Your task to perform on an android device: turn on location history Image 0: 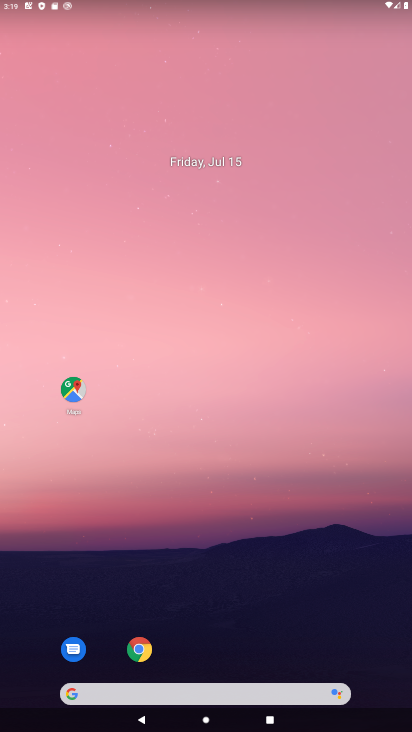
Step 0: drag from (301, 598) to (235, 145)
Your task to perform on an android device: turn on location history Image 1: 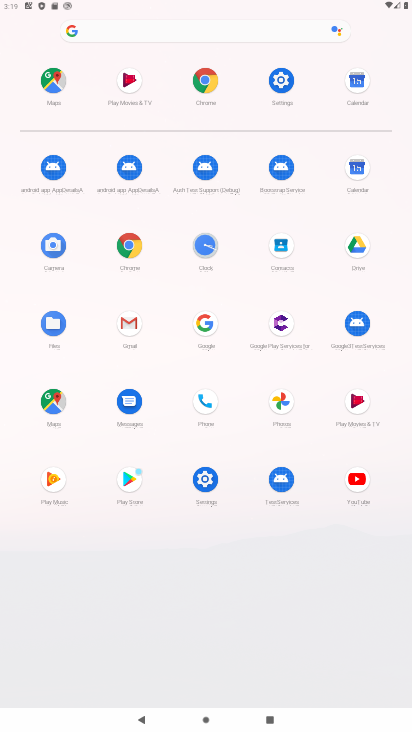
Step 1: click (283, 78)
Your task to perform on an android device: turn on location history Image 2: 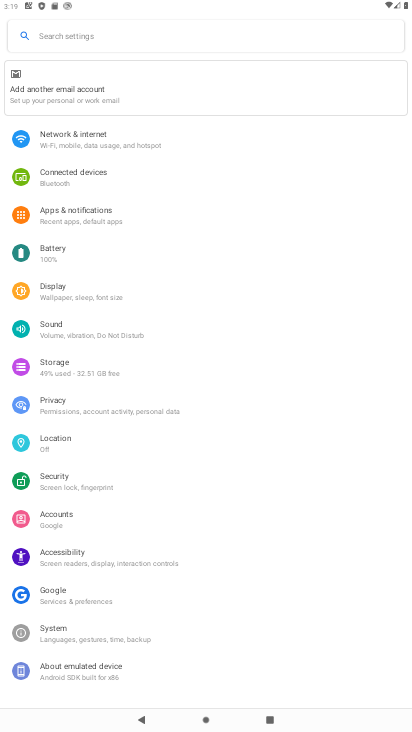
Step 2: click (61, 448)
Your task to perform on an android device: turn on location history Image 3: 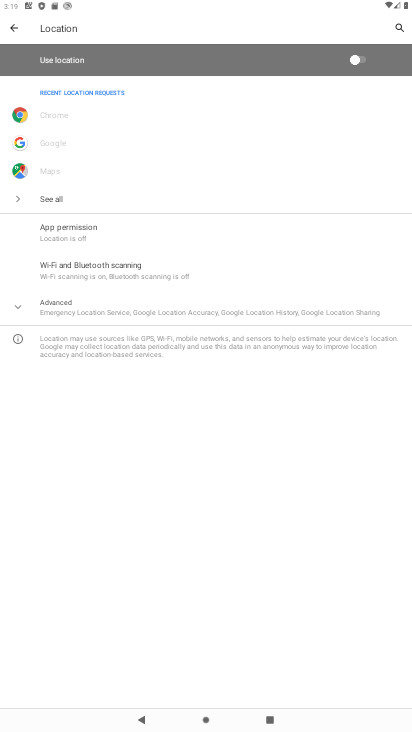
Step 3: click (79, 311)
Your task to perform on an android device: turn on location history Image 4: 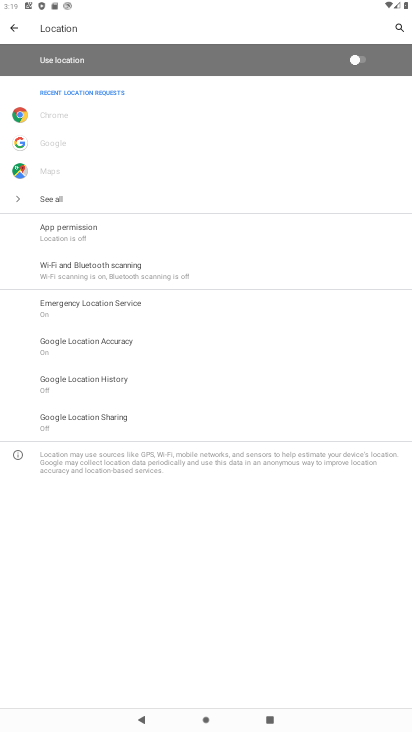
Step 4: click (97, 384)
Your task to perform on an android device: turn on location history Image 5: 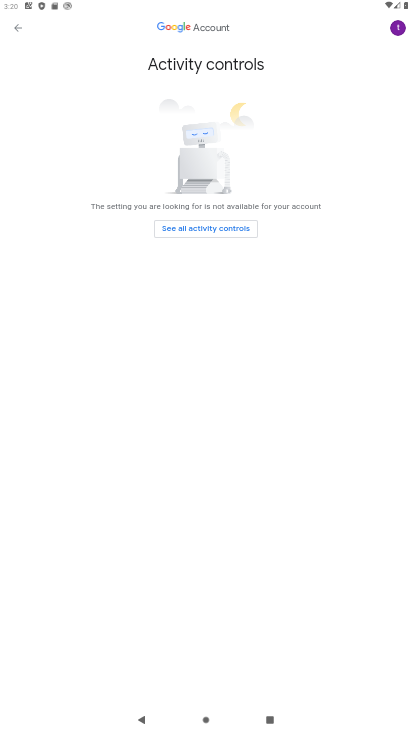
Step 5: task complete